Your task to perform on an android device: add a contact Image 0: 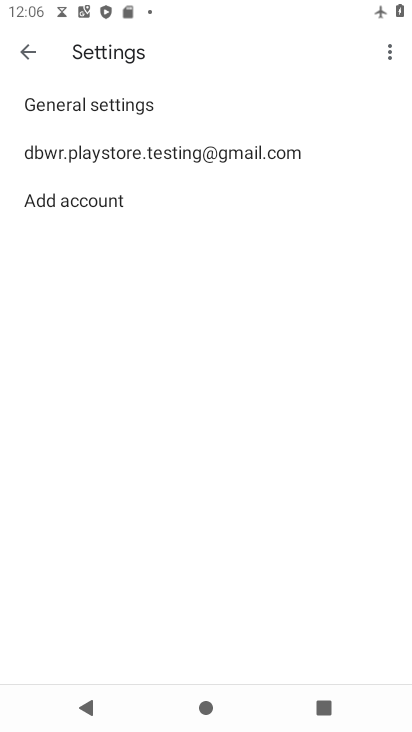
Step 0: press home button
Your task to perform on an android device: add a contact Image 1: 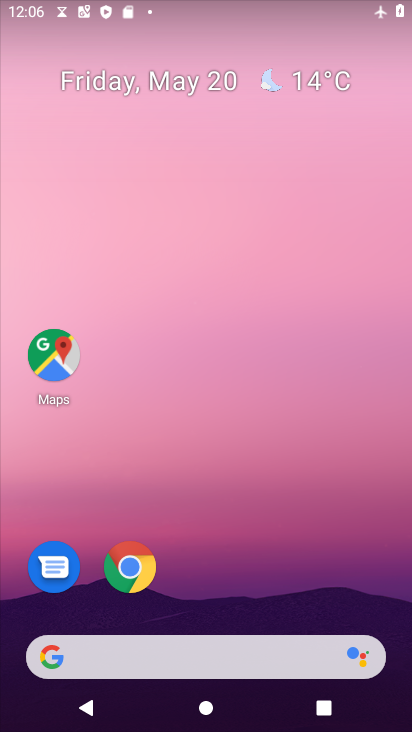
Step 1: drag from (254, 551) to (326, 48)
Your task to perform on an android device: add a contact Image 2: 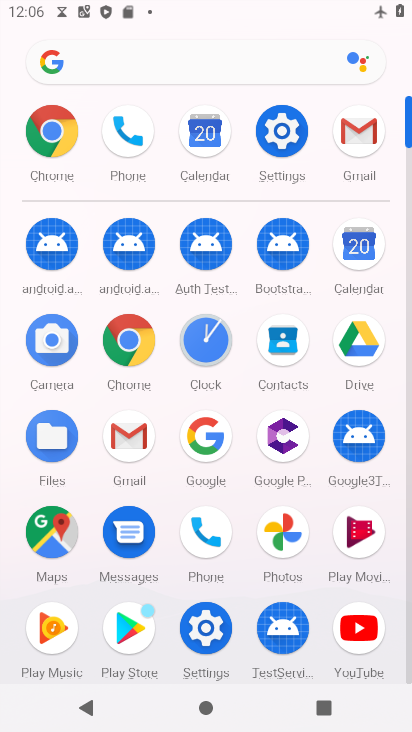
Step 2: click (115, 143)
Your task to perform on an android device: add a contact Image 3: 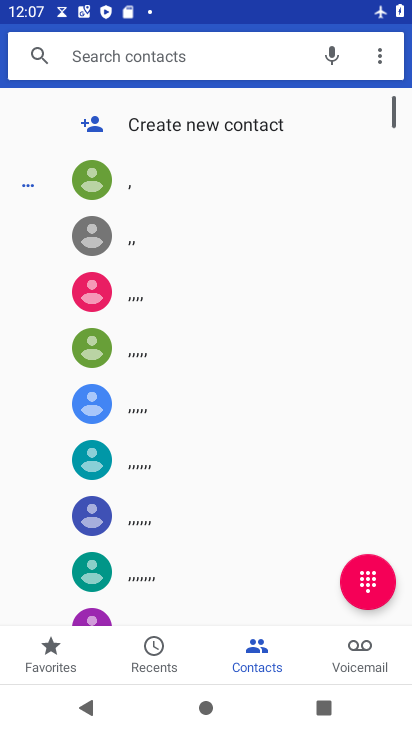
Step 3: click (281, 700)
Your task to perform on an android device: add a contact Image 4: 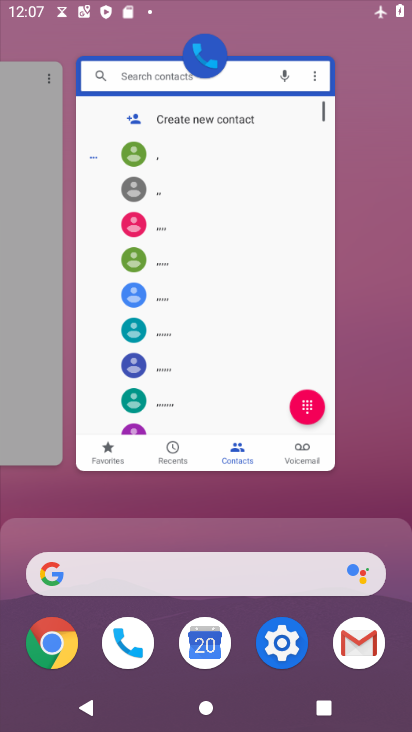
Step 4: click (266, 400)
Your task to perform on an android device: add a contact Image 5: 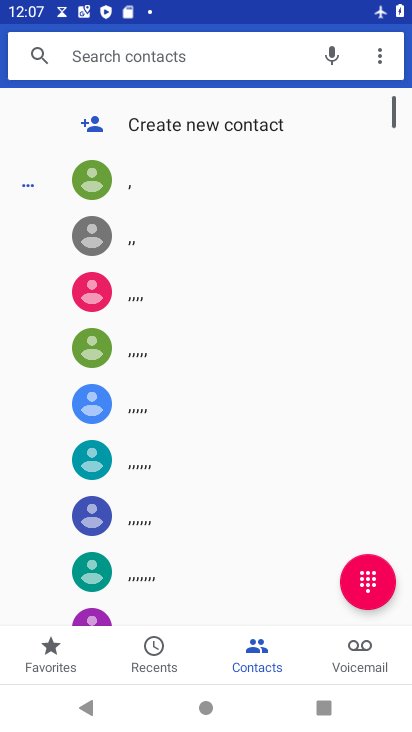
Step 5: click (205, 139)
Your task to perform on an android device: add a contact Image 6: 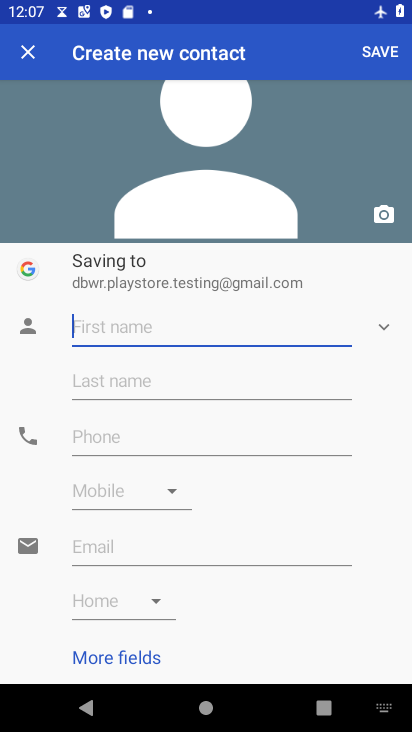
Step 6: type "teyeyyee"
Your task to perform on an android device: add a contact Image 7: 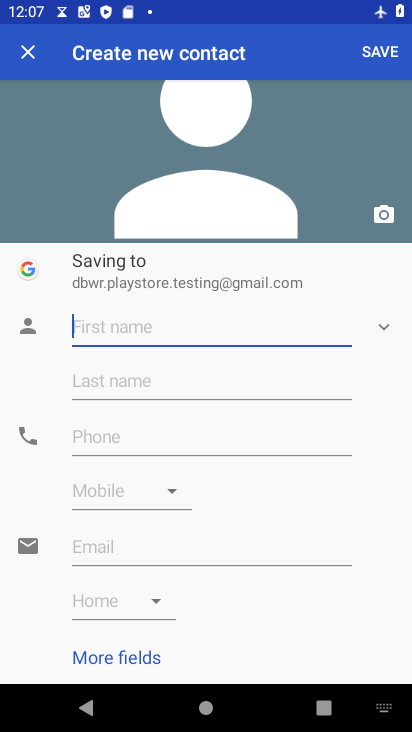
Step 7: click (141, 436)
Your task to perform on an android device: add a contact Image 8: 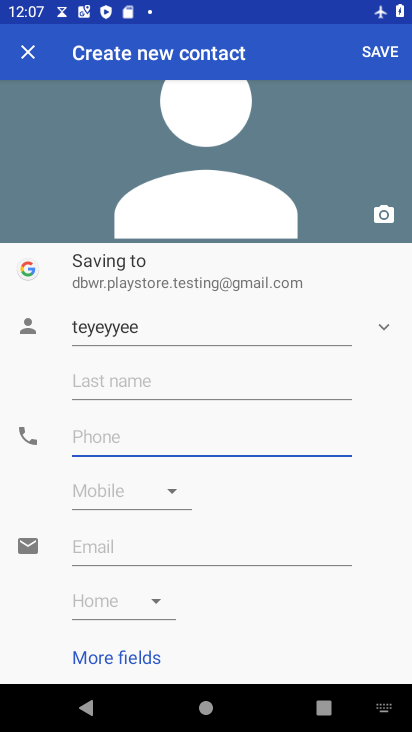
Step 8: type "4563636666"
Your task to perform on an android device: add a contact Image 9: 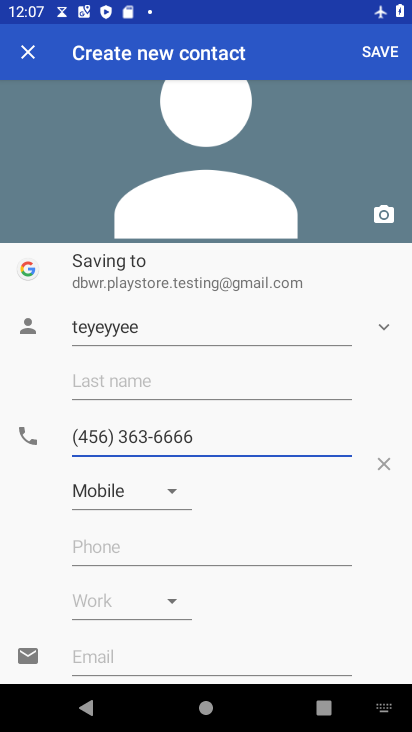
Step 9: click (383, 57)
Your task to perform on an android device: add a contact Image 10: 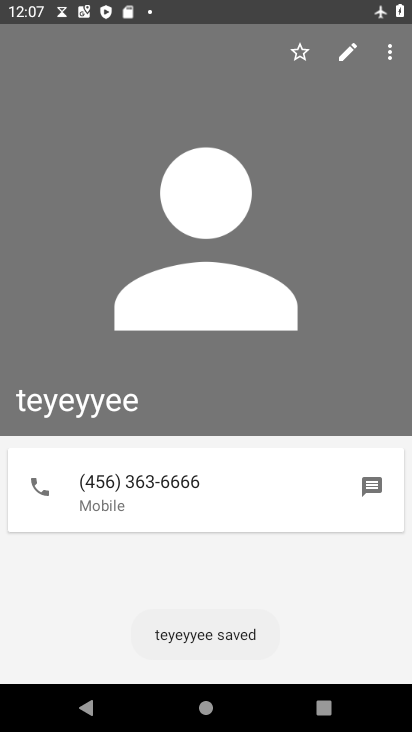
Step 10: task complete